Your task to perform on an android device: Show me the alarms in the clock app Image 0: 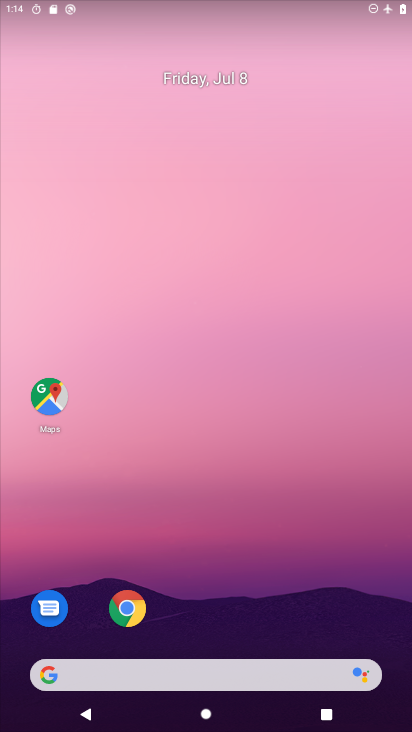
Step 0: drag from (235, 725) to (235, 113)
Your task to perform on an android device: Show me the alarms in the clock app Image 1: 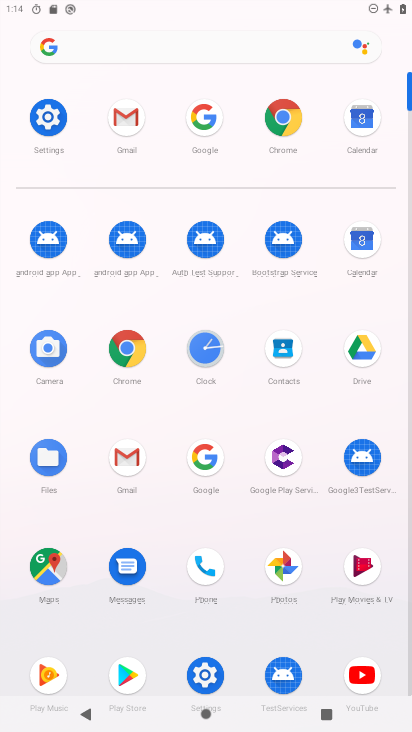
Step 1: click (201, 353)
Your task to perform on an android device: Show me the alarms in the clock app Image 2: 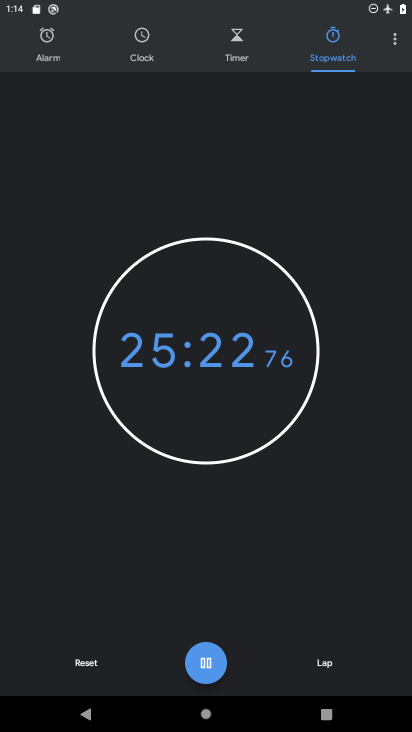
Step 2: click (47, 46)
Your task to perform on an android device: Show me the alarms in the clock app Image 3: 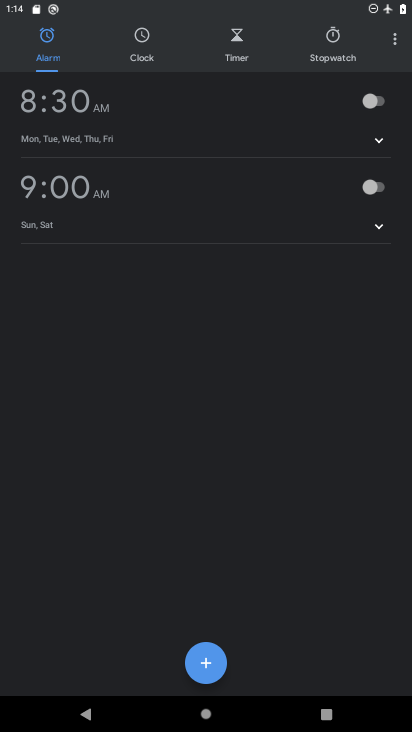
Step 3: task complete